Your task to perform on an android device: Go to Yahoo.com Image 0: 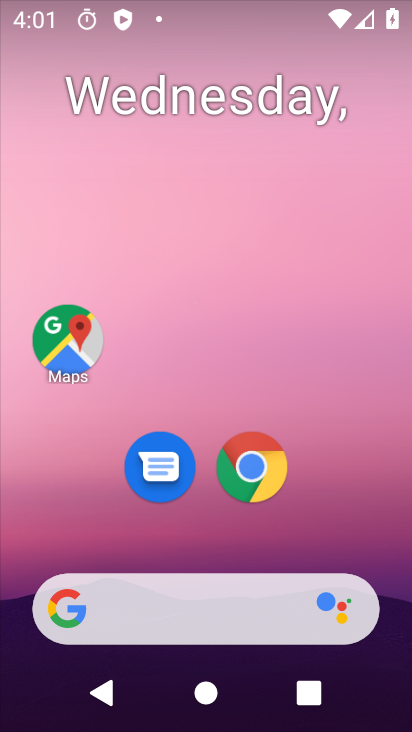
Step 0: click (270, 464)
Your task to perform on an android device: Go to Yahoo.com Image 1: 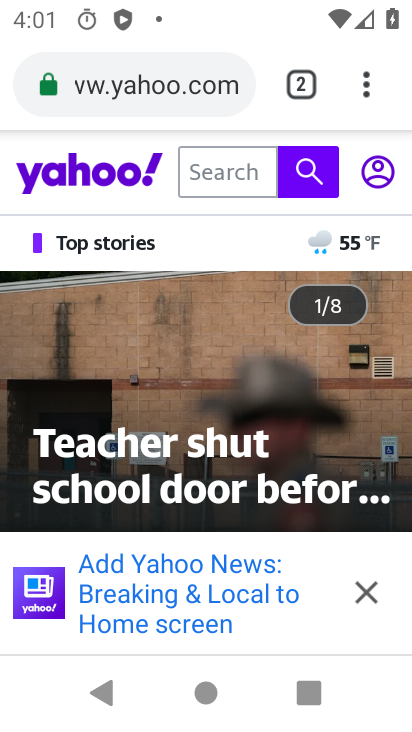
Step 1: task complete